Your task to perform on an android device: View the shopping cart on newegg. Image 0: 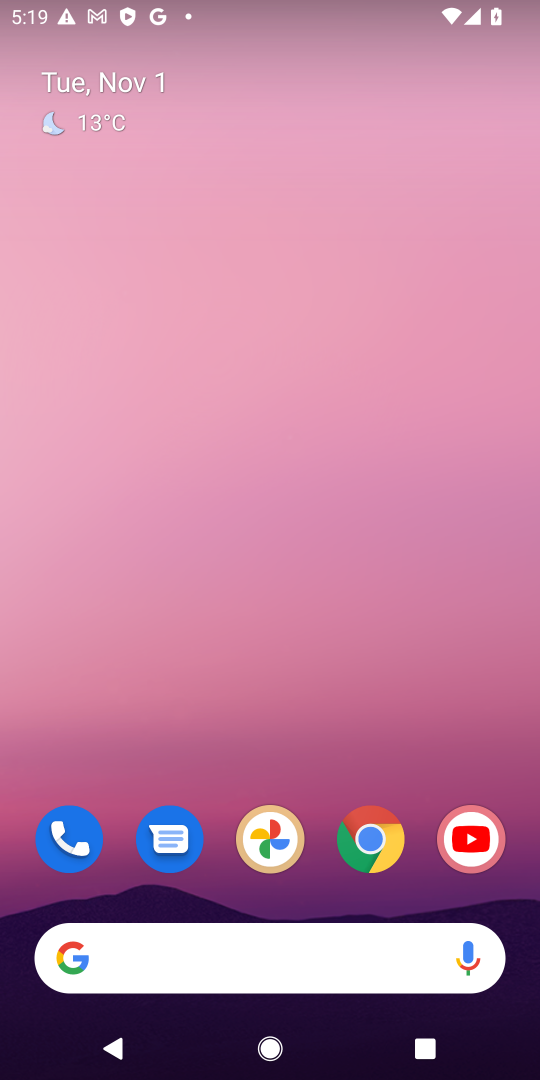
Step 0: drag from (321, 901) to (392, 232)
Your task to perform on an android device: View the shopping cart on newegg. Image 1: 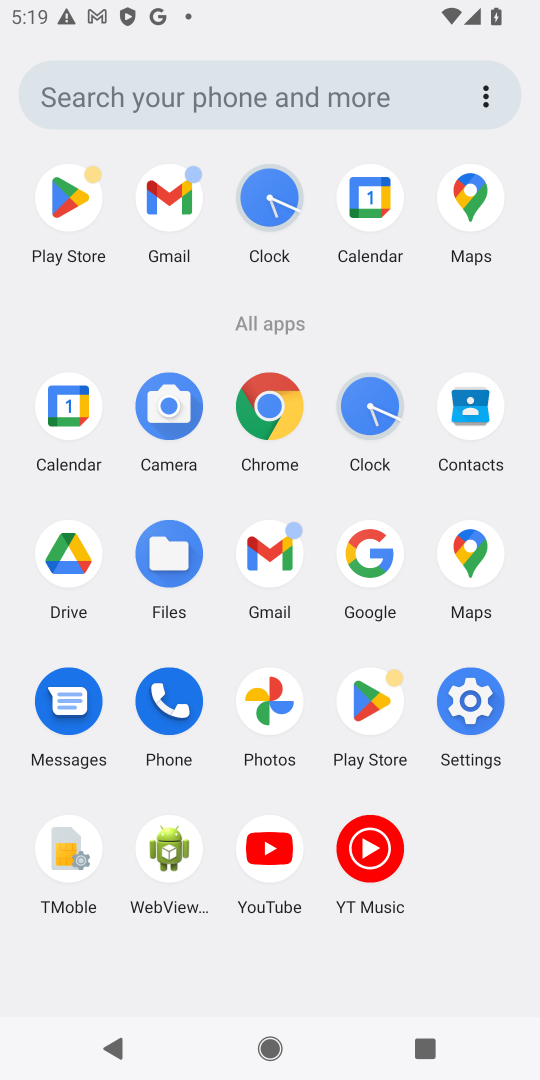
Step 1: click (273, 392)
Your task to perform on an android device: View the shopping cart on newegg. Image 2: 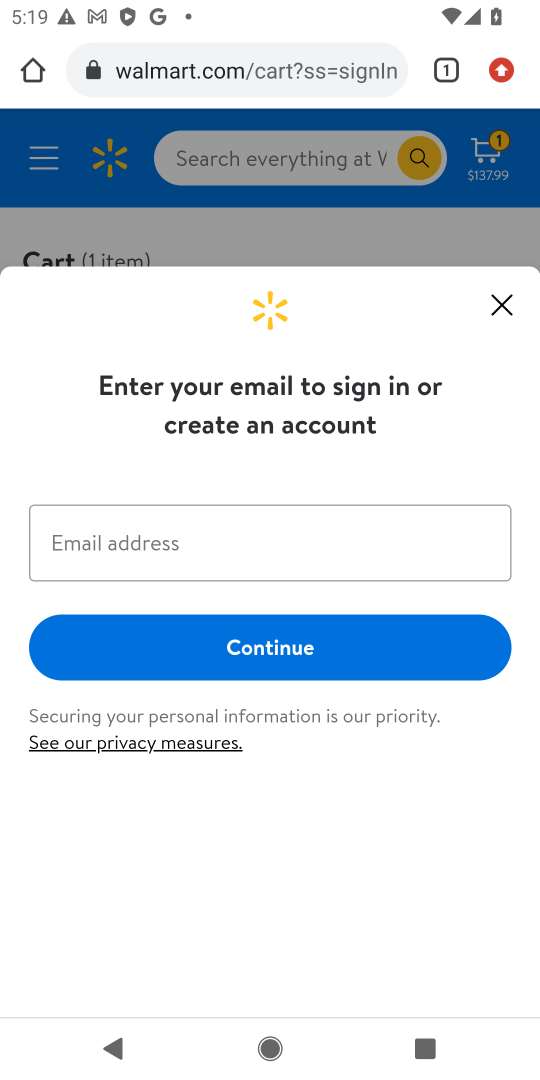
Step 2: click (297, 66)
Your task to perform on an android device: View the shopping cart on newegg. Image 3: 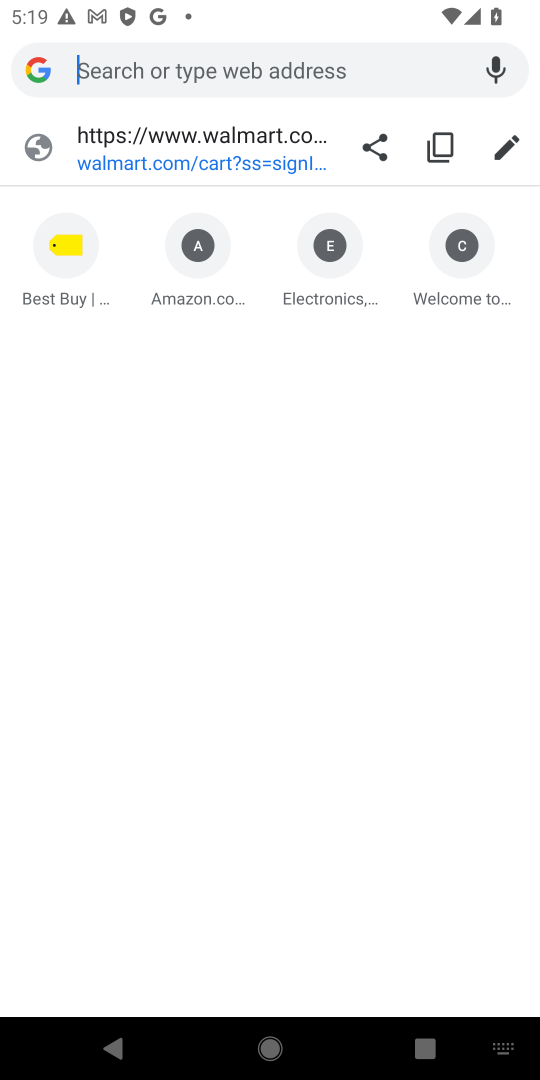
Step 3: type "newegg.com"
Your task to perform on an android device: View the shopping cart on newegg. Image 4: 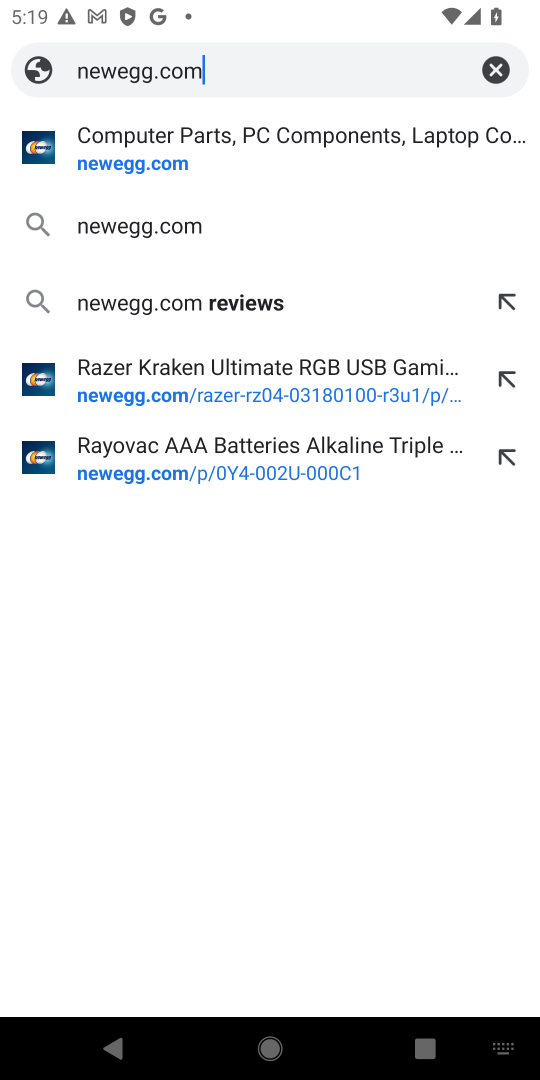
Step 4: press enter
Your task to perform on an android device: View the shopping cart on newegg. Image 5: 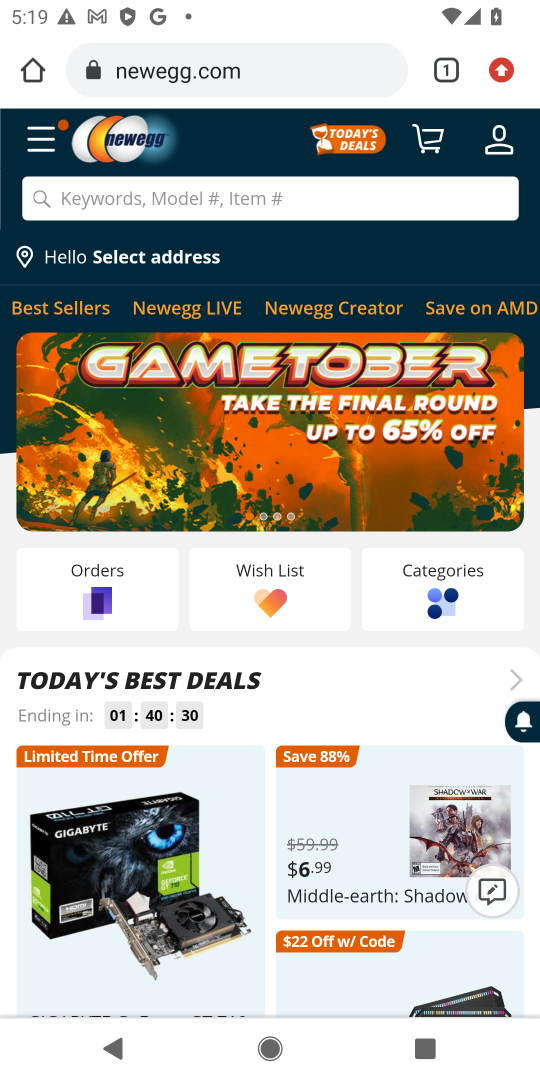
Step 5: click (437, 137)
Your task to perform on an android device: View the shopping cart on newegg. Image 6: 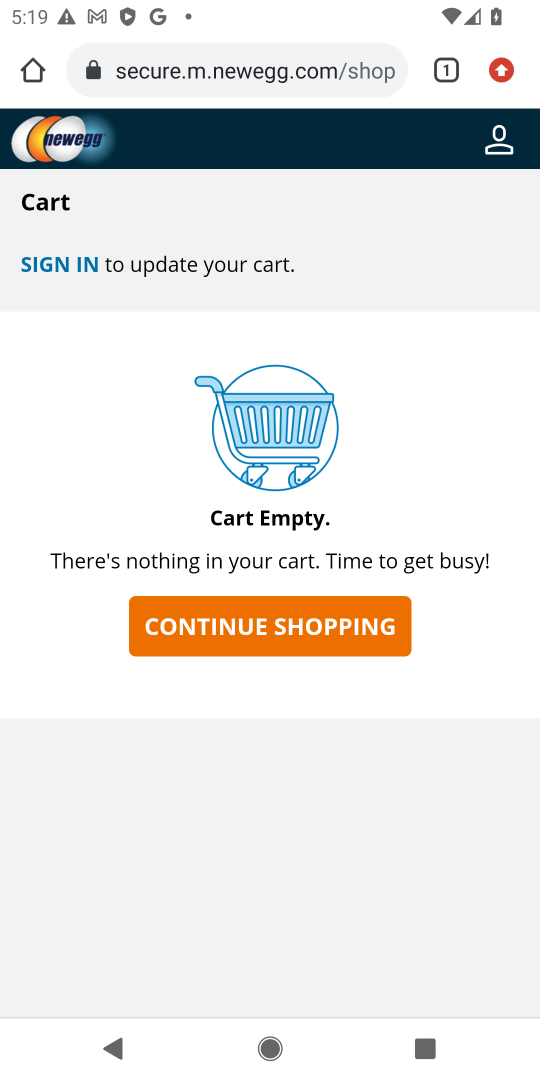
Step 6: drag from (331, 643) to (453, 895)
Your task to perform on an android device: View the shopping cart on newegg. Image 7: 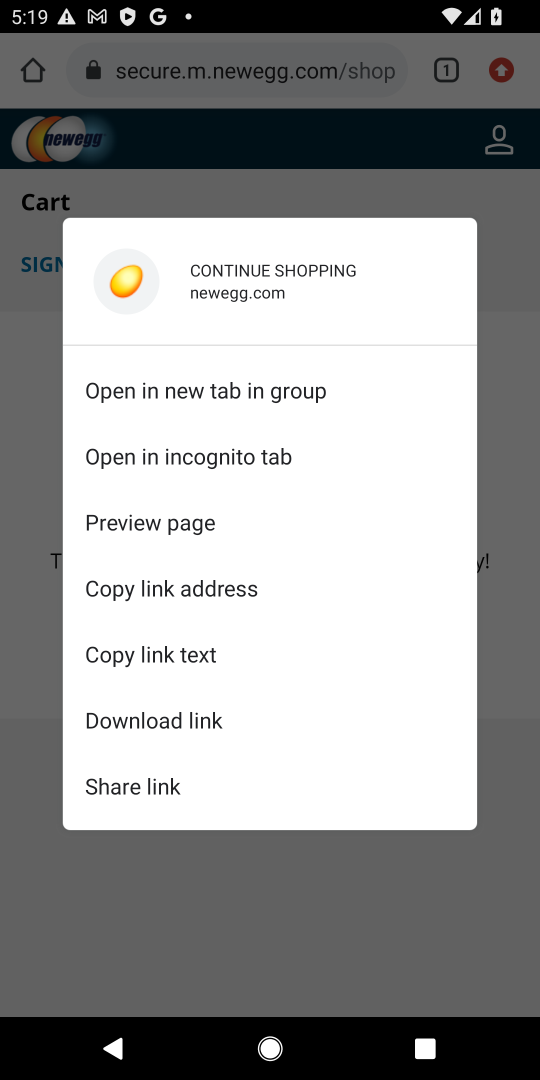
Step 7: click (528, 351)
Your task to perform on an android device: View the shopping cart on newegg. Image 8: 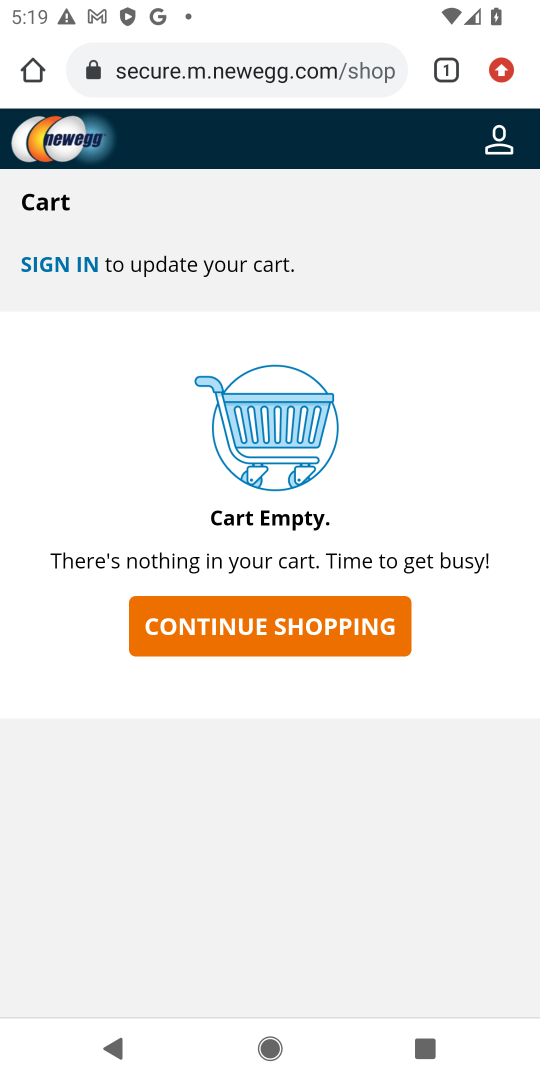
Step 8: task complete